Your task to perform on an android device: Go to internet settings Image 0: 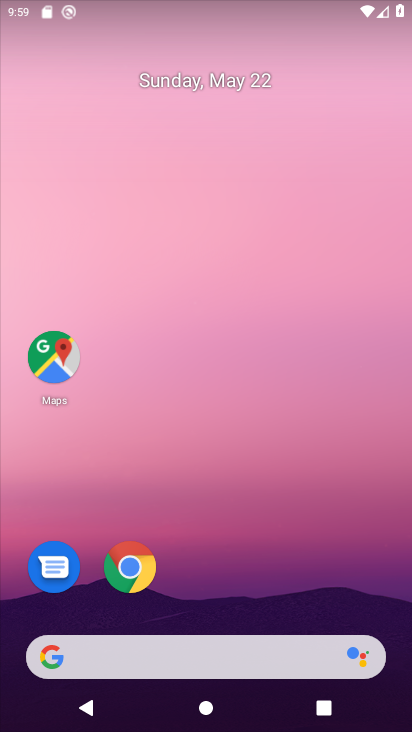
Step 0: drag from (208, 628) to (204, 82)
Your task to perform on an android device: Go to internet settings Image 1: 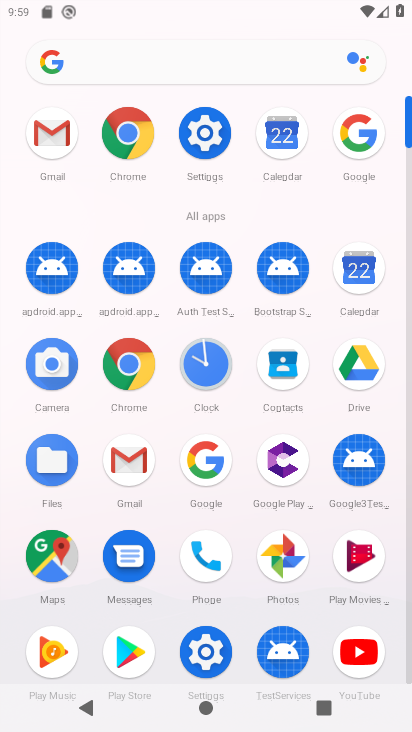
Step 1: click (201, 126)
Your task to perform on an android device: Go to internet settings Image 2: 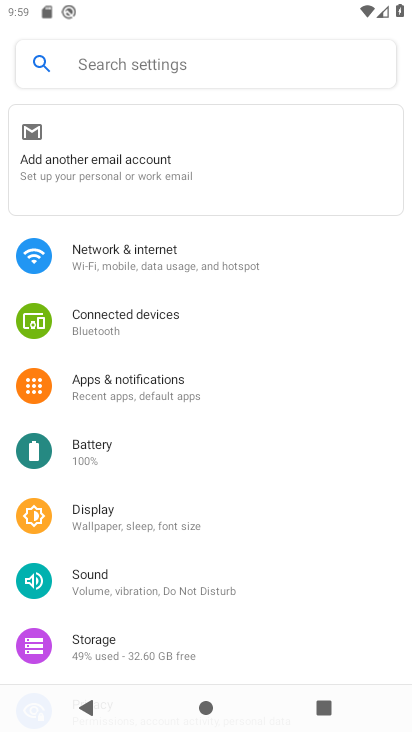
Step 2: click (186, 247)
Your task to perform on an android device: Go to internet settings Image 3: 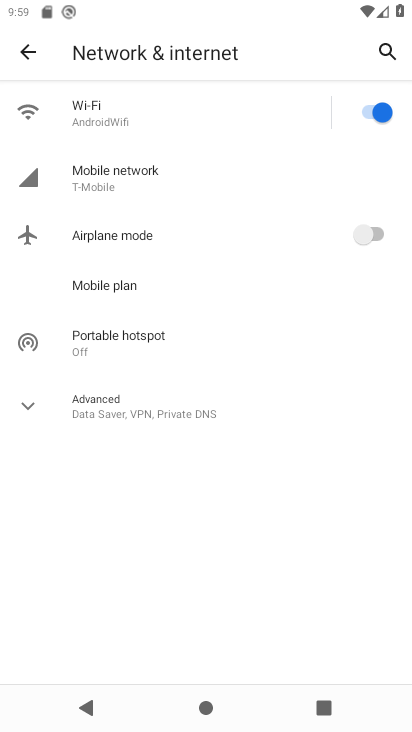
Step 3: click (136, 113)
Your task to perform on an android device: Go to internet settings Image 4: 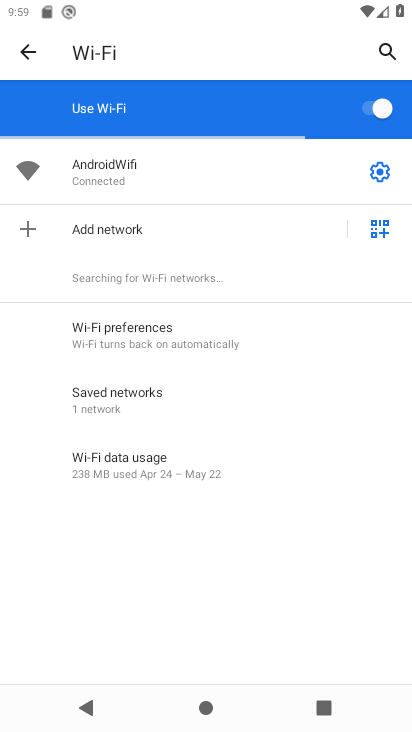
Step 4: click (20, 58)
Your task to perform on an android device: Go to internet settings Image 5: 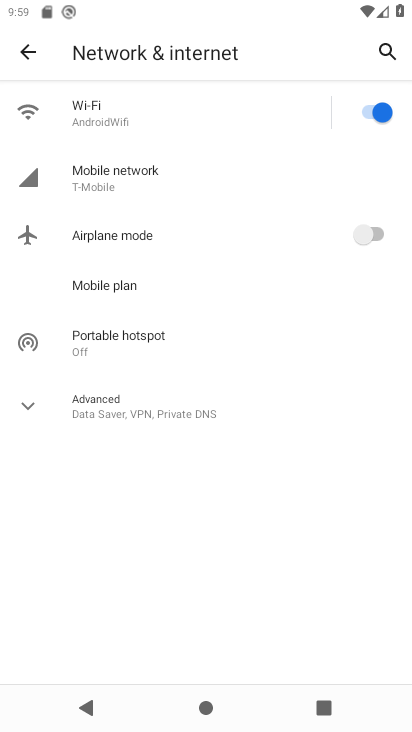
Step 5: click (46, 397)
Your task to perform on an android device: Go to internet settings Image 6: 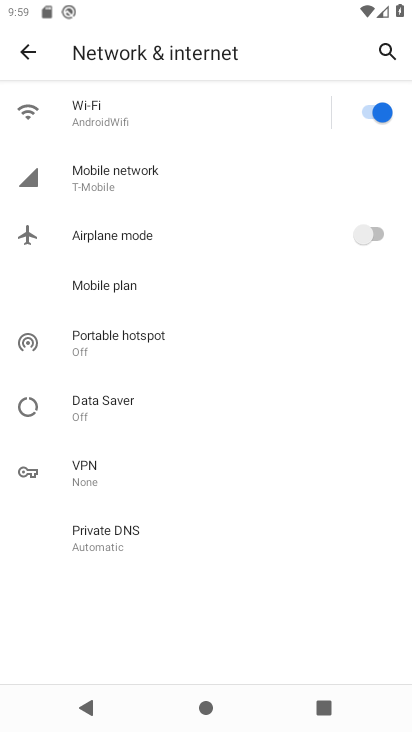
Step 6: task complete